Your task to perform on an android device: refresh tabs in the chrome app Image 0: 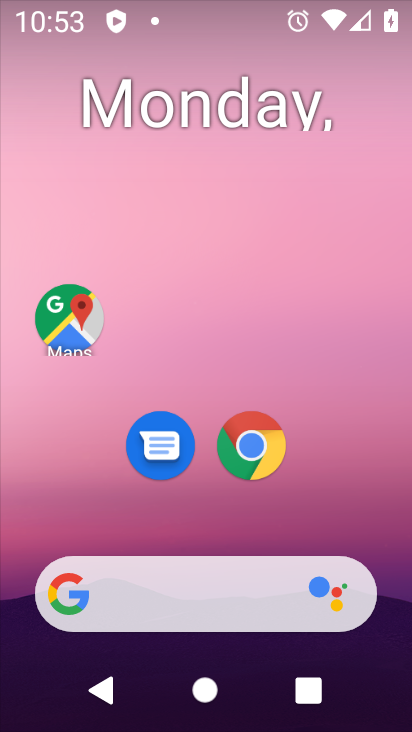
Step 0: click (247, 448)
Your task to perform on an android device: refresh tabs in the chrome app Image 1: 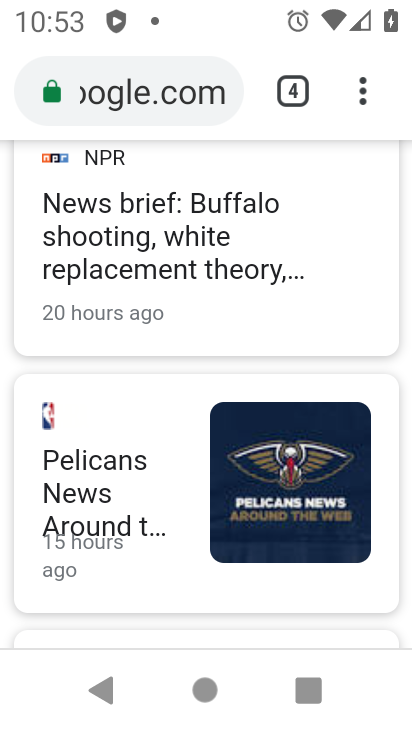
Step 1: click (357, 90)
Your task to perform on an android device: refresh tabs in the chrome app Image 2: 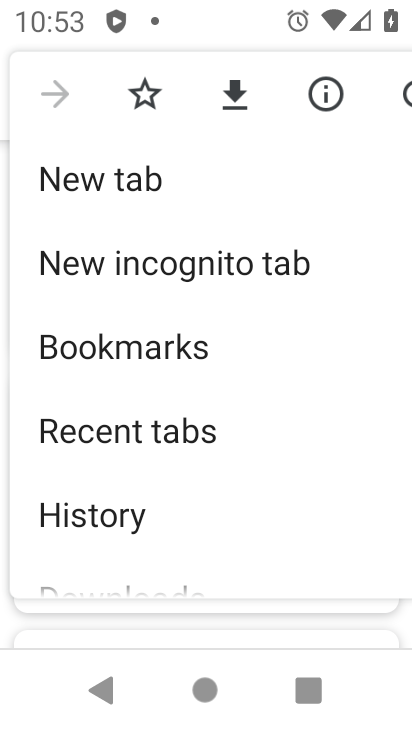
Step 2: click (405, 97)
Your task to perform on an android device: refresh tabs in the chrome app Image 3: 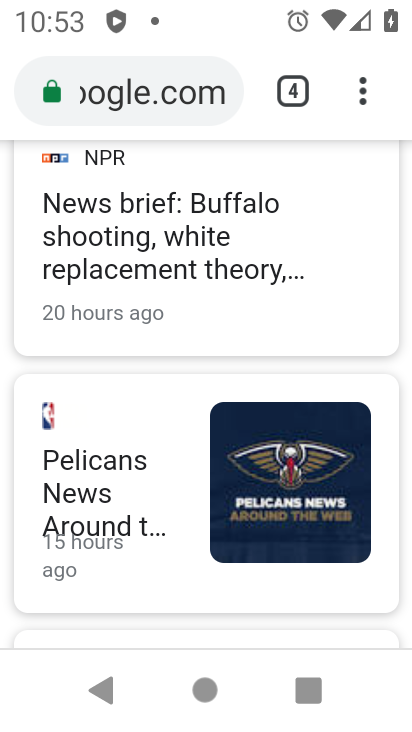
Step 3: task complete